Your task to perform on an android device: see tabs open on other devices in the chrome app Image 0: 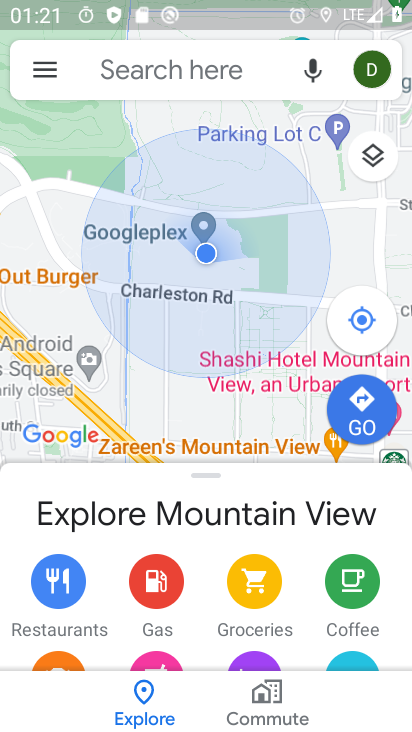
Step 0: press home button
Your task to perform on an android device: see tabs open on other devices in the chrome app Image 1: 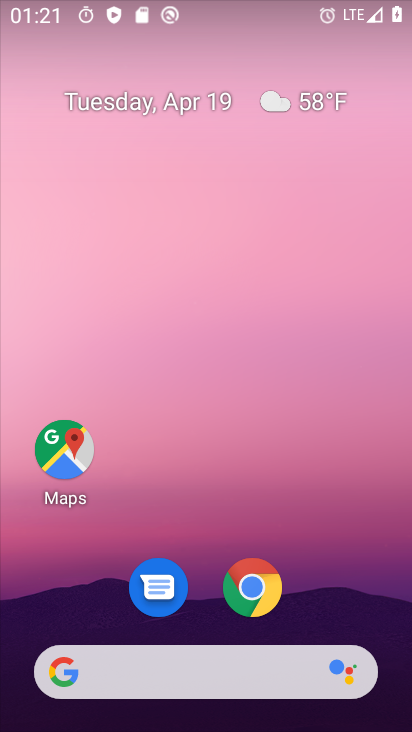
Step 1: click (270, 579)
Your task to perform on an android device: see tabs open on other devices in the chrome app Image 2: 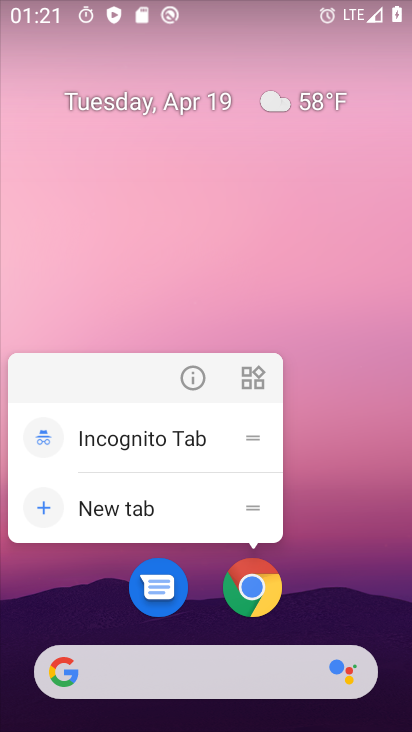
Step 2: click (270, 579)
Your task to perform on an android device: see tabs open on other devices in the chrome app Image 3: 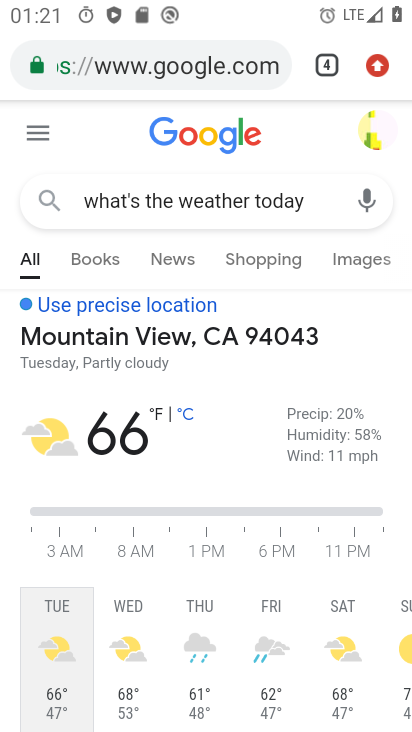
Step 3: click (321, 72)
Your task to perform on an android device: see tabs open on other devices in the chrome app Image 4: 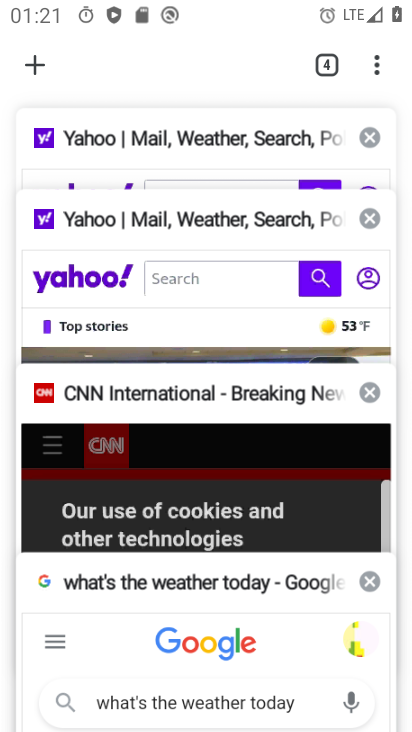
Step 4: task complete